Your task to perform on an android device: Show me the alarms in the clock app Image 0: 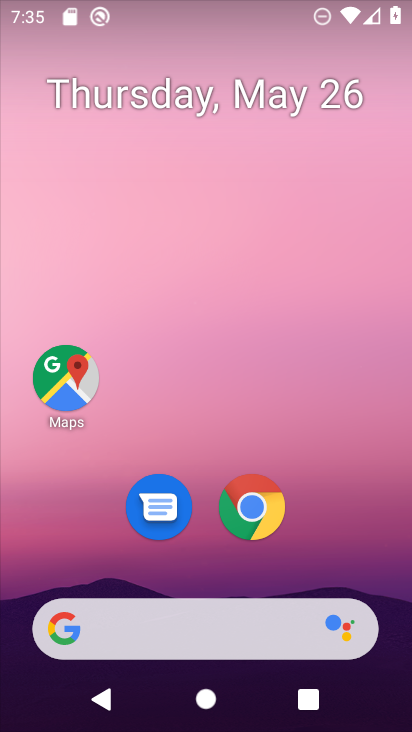
Step 0: drag from (189, 568) to (202, 90)
Your task to perform on an android device: Show me the alarms in the clock app Image 1: 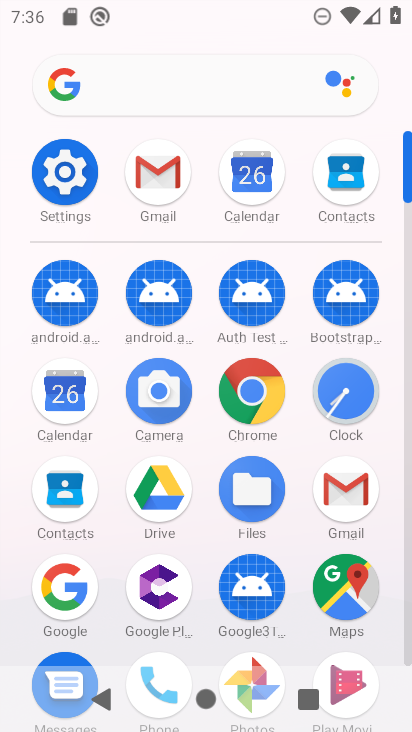
Step 1: click (347, 384)
Your task to perform on an android device: Show me the alarms in the clock app Image 2: 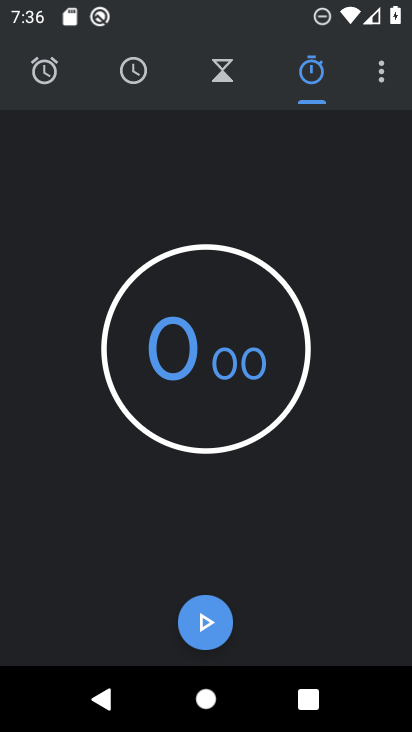
Step 2: click (57, 77)
Your task to perform on an android device: Show me the alarms in the clock app Image 3: 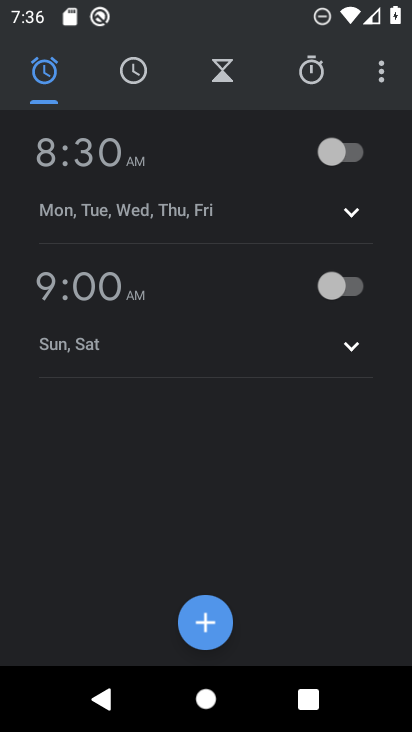
Step 3: task complete